Your task to perform on an android device: Show me recent news Image 0: 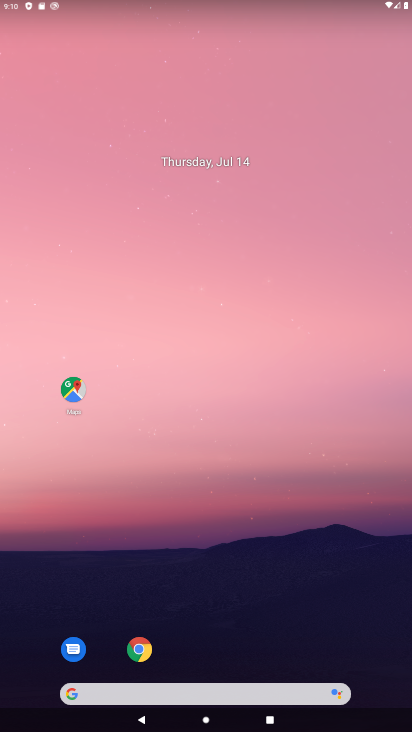
Step 0: drag from (212, 651) to (199, 172)
Your task to perform on an android device: Show me recent news Image 1: 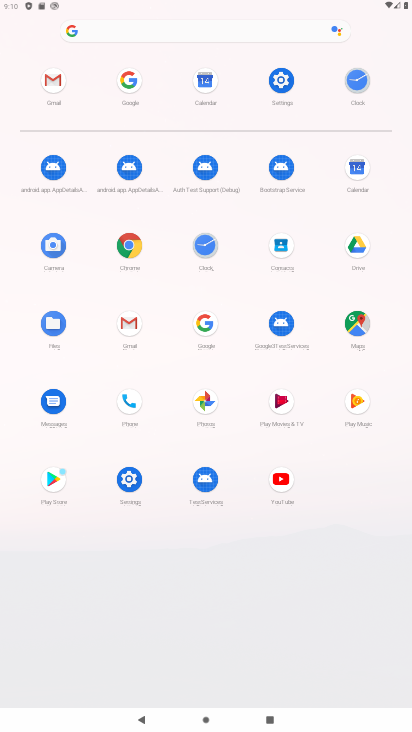
Step 1: click (212, 319)
Your task to perform on an android device: Show me recent news Image 2: 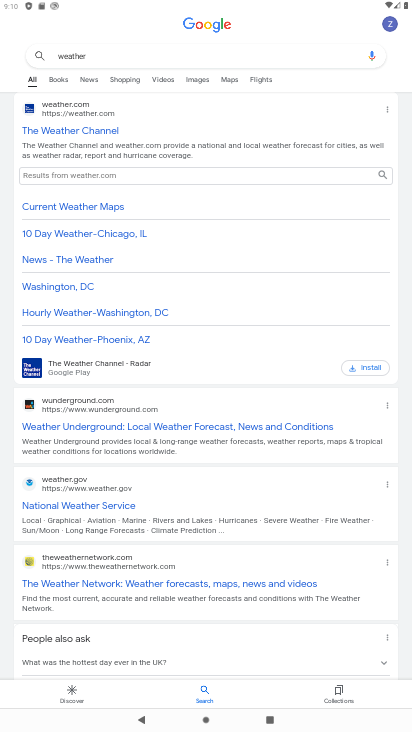
Step 2: drag from (272, 54) to (222, 54)
Your task to perform on an android device: Show me recent news Image 3: 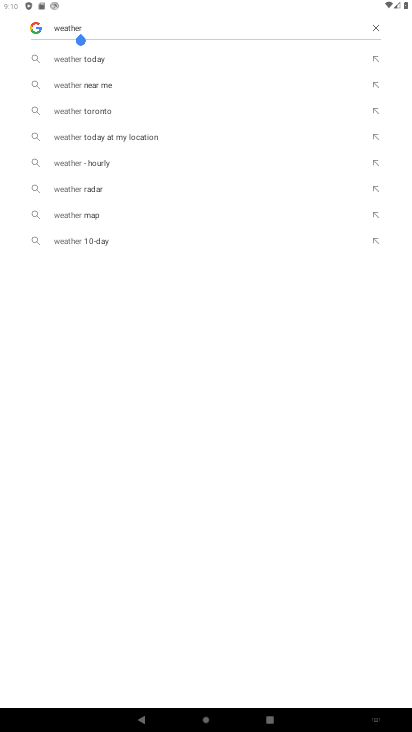
Step 3: click (372, 25)
Your task to perform on an android device: Show me recent news Image 4: 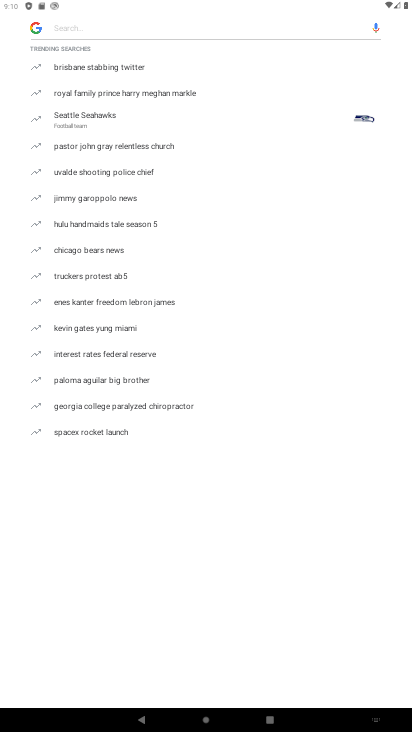
Step 4: type "news"
Your task to perform on an android device: Show me recent news Image 5: 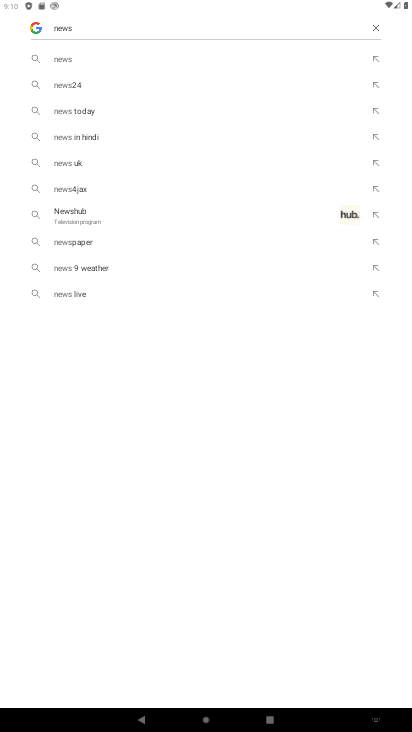
Step 5: click (69, 56)
Your task to perform on an android device: Show me recent news Image 6: 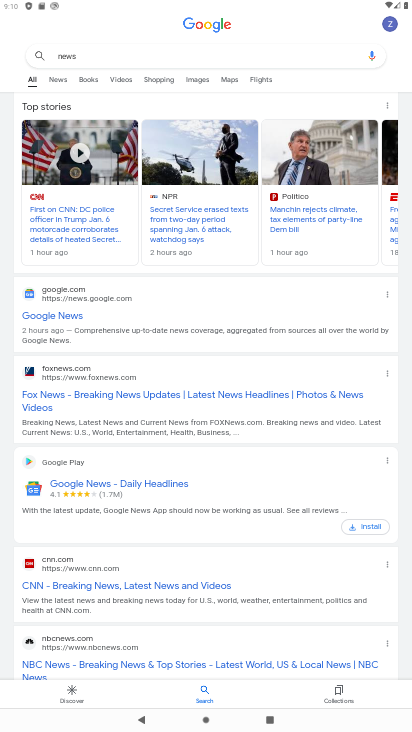
Step 6: click (55, 80)
Your task to perform on an android device: Show me recent news Image 7: 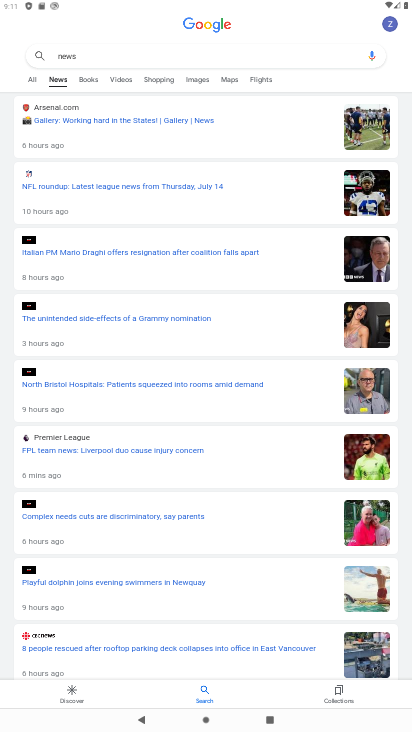
Step 7: press home button
Your task to perform on an android device: Show me recent news Image 8: 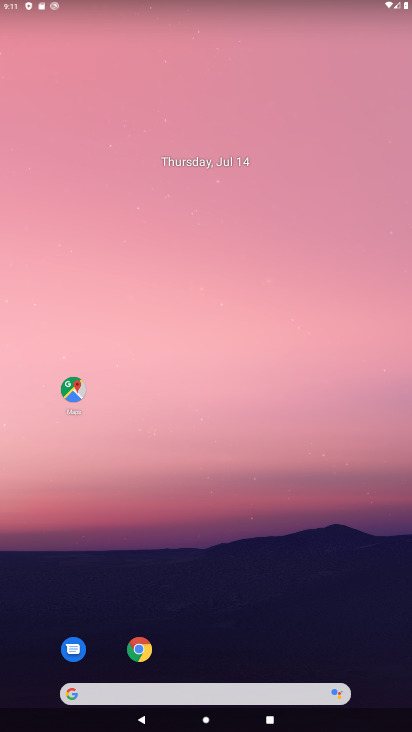
Step 8: drag from (210, 654) to (207, 173)
Your task to perform on an android device: Show me recent news Image 9: 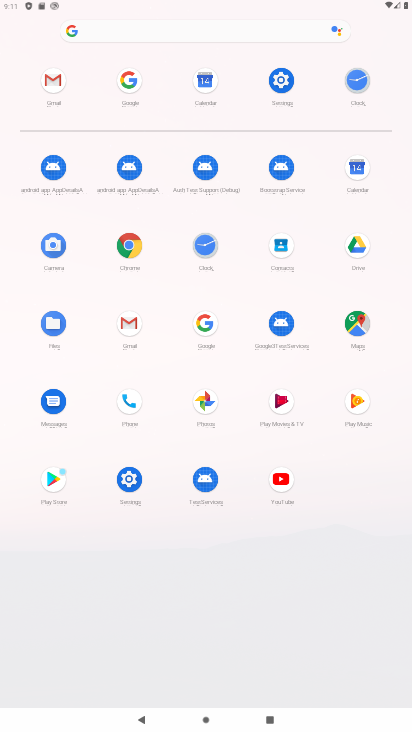
Step 9: click (145, 86)
Your task to perform on an android device: Show me recent news Image 10: 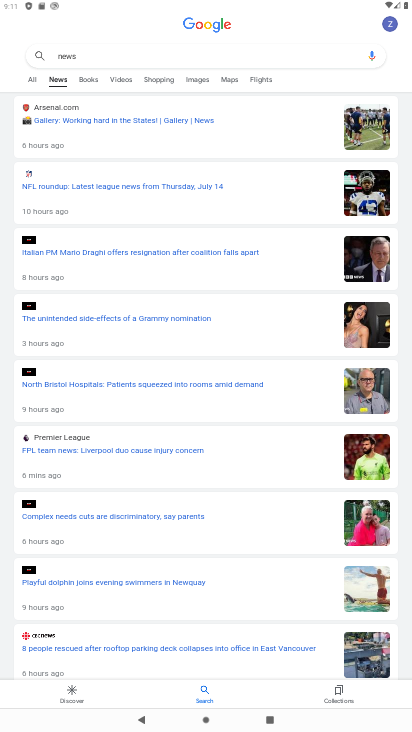
Step 10: task complete